Your task to perform on an android device: set the timer Image 0: 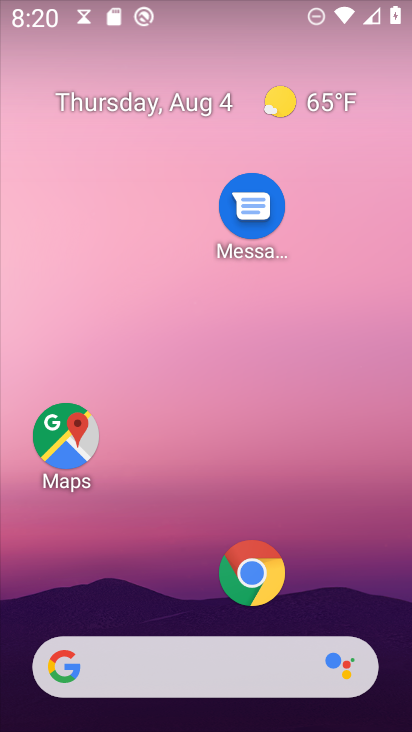
Step 0: press home button
Your task to perform on an android device: set the timer Image 1: 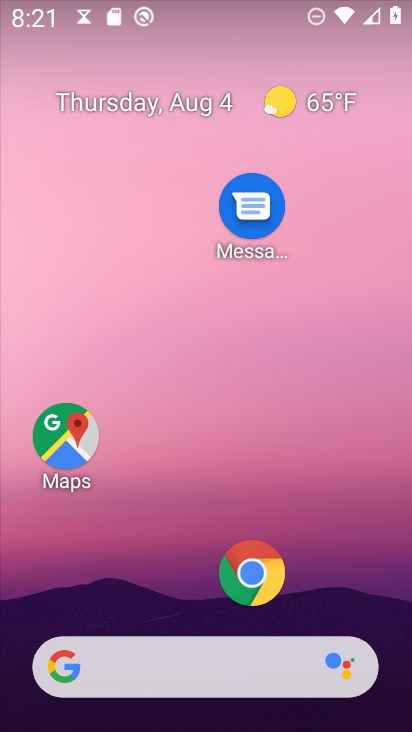
Step 1: drag from (166, 617) to (191, 170)
Your task to perform on an android device: set the timer Image 2: 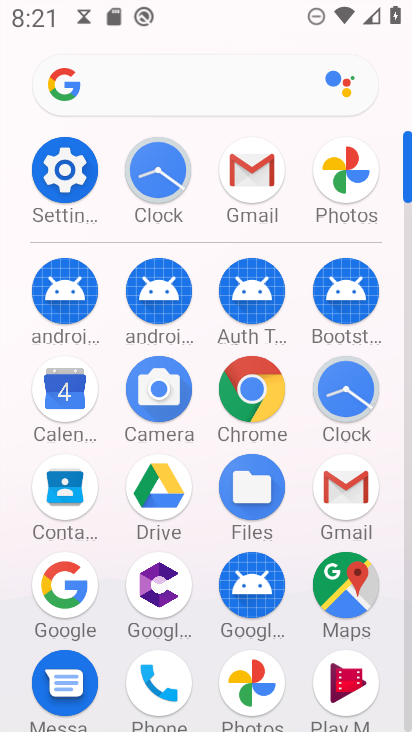
Step 2: click (343, 403)
Your task to perform on an android device: set the timer Image 3: 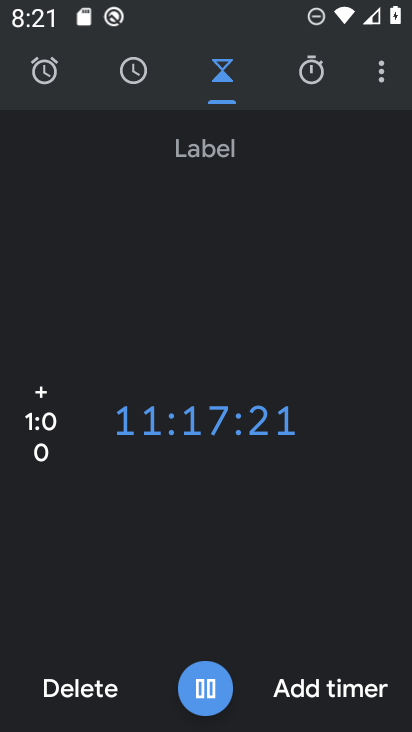
Step 3: click (229, 79)
Your task to perform on an android device: set the timer Image 4: 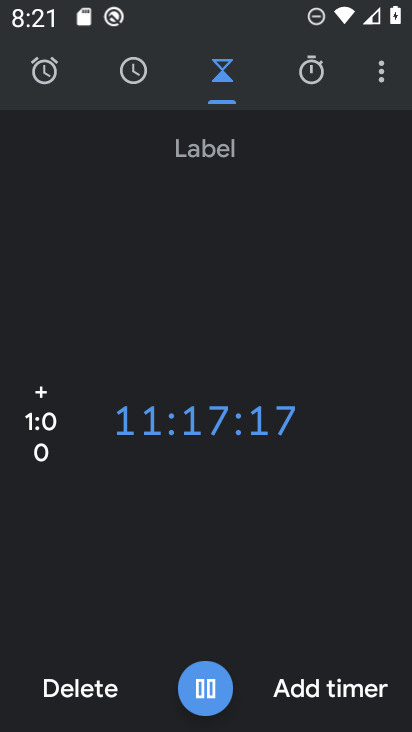
Step 4: task complete